Your task to perform on an android device: Open Wikipedia Image 0: 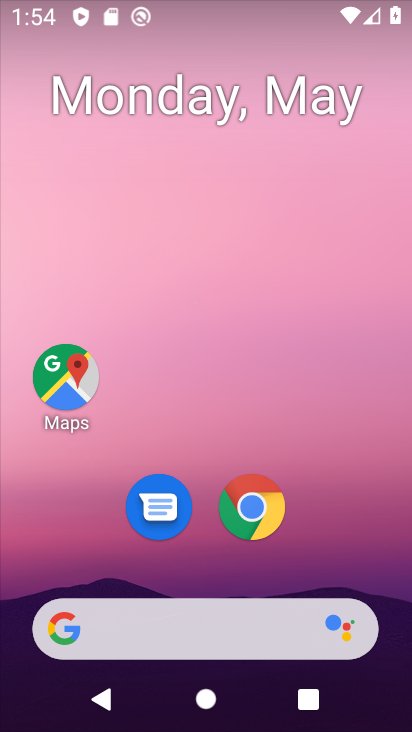
Step 0: drag from (210, 491) to (254, 114)
Your task to perform on an android device: Open Wikipedia Image 1: 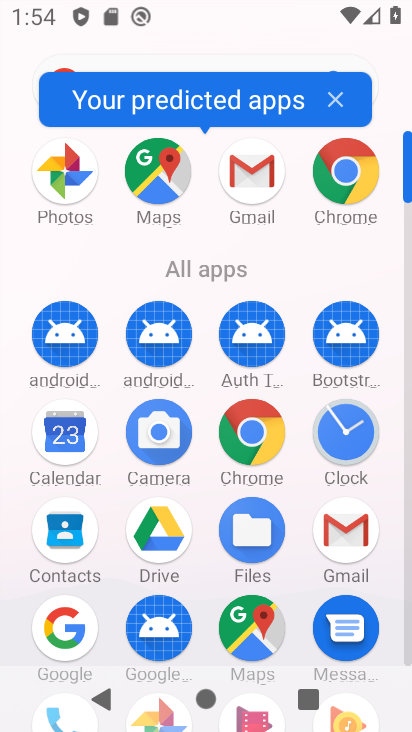
Step 1: click (334, 179)
Your task to perform on an android device: Open Wikipedia Image 2: 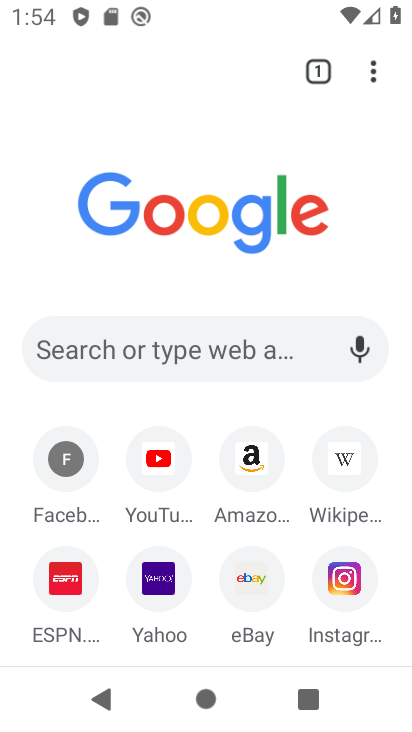
Step 2: click (345, 470)
Your task to perform on an android device: Open Wikipedia Image 3: 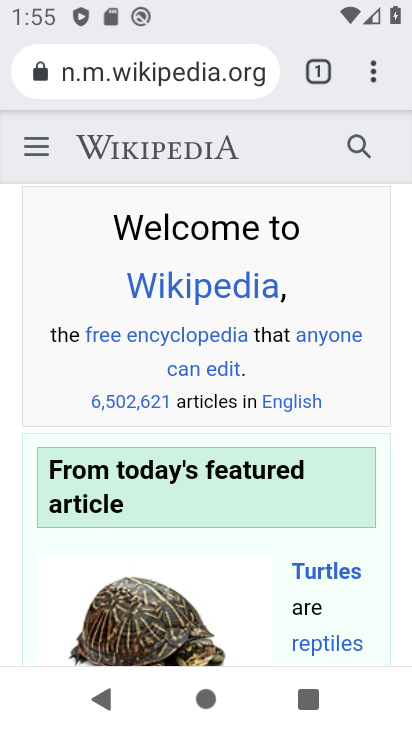
Step 3: task complete